Your task to perform on an android device: empty trash in the gmail app Image 0: 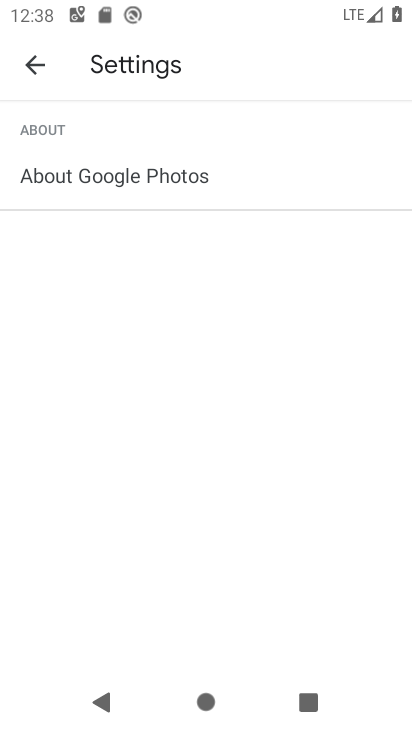
Step 0: press home button
Your task to perform on an android device: empty trash in the gmail app Image 1: 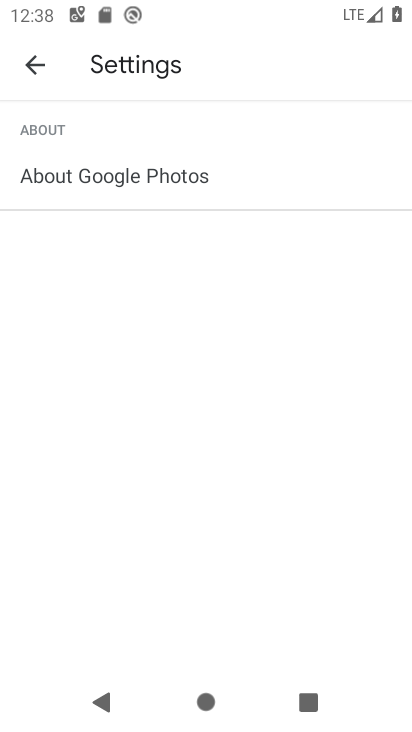
Step 1: press home button
Your task to perform on an android device: empty trash in the gmail app Image 2: 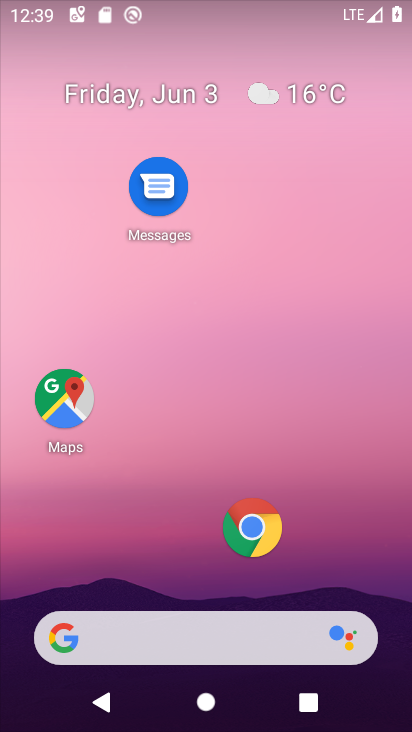
Step 2: drag from (190, 576) to (296, 77)
Your task to perform on an android device: empty trash in the gmail app Image 3: 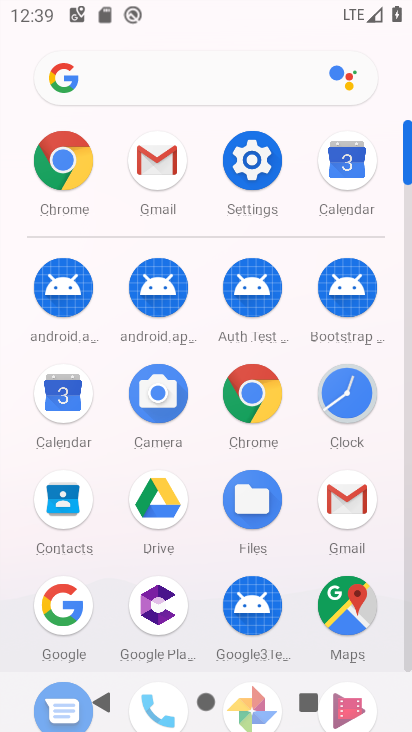
Step 3: click (349, 492)
Your task to perform on an android device: empty trash in the gmail app Image 4: 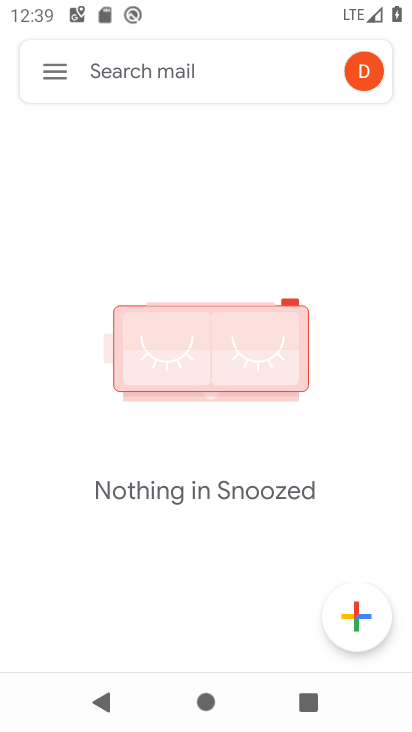
Step 4: click (47, 71)
Your task to perform on an android device: empty trash in the gmail app Image 5: 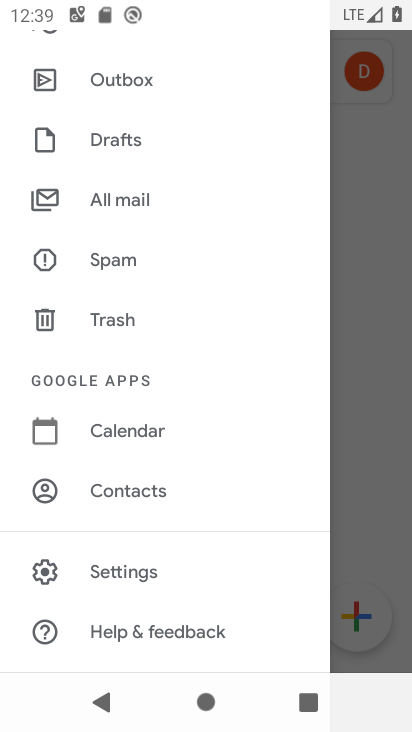
Step 5: click (114, 315)
Your task to perform on an android device: empty trash in the gmail app Image 6: 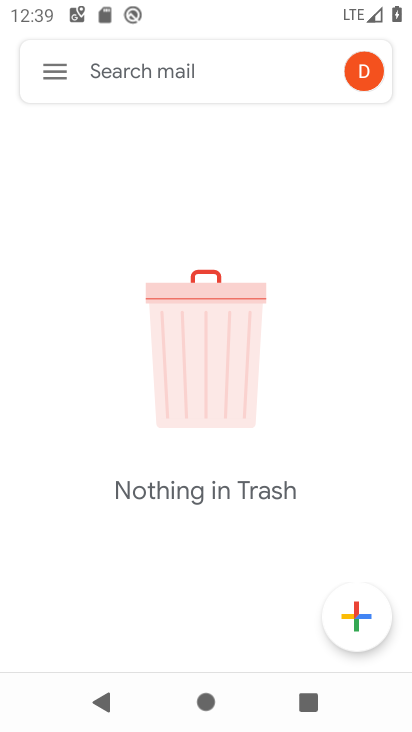
Step 6: task complete